Your task to perform on an android device: Open Maps and search for coffee Image 0: 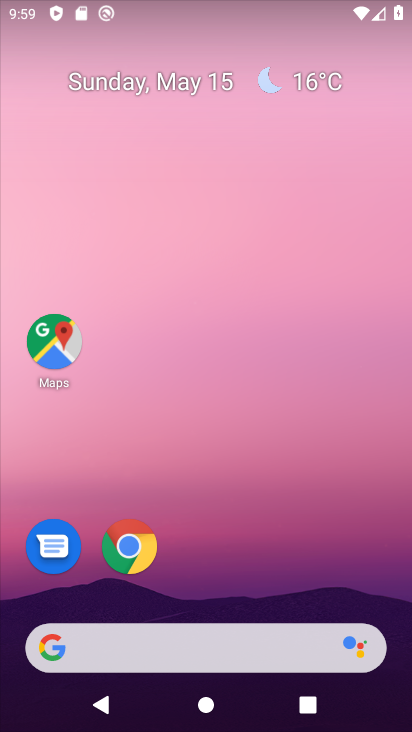
Step 0: click (165, 0)
Your task to perform on an android device: Open Maps and search for coffee Image 1: 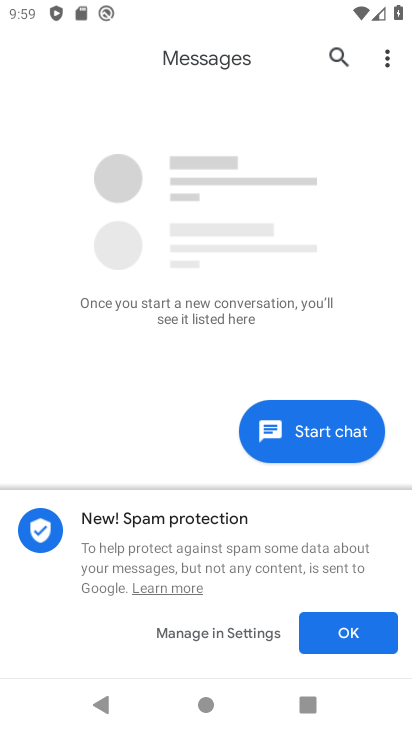
Step 1: press back button
Your task to perform on an android device: Open Maps and search for coffee Image 2: 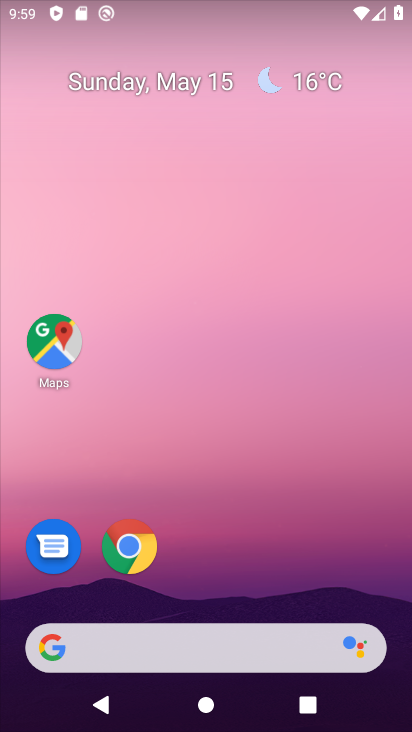
Step 2: drag from (278, 683) to (232, 128)
Your task to perform on an android device: Open Maps and search for coffee Image 3: 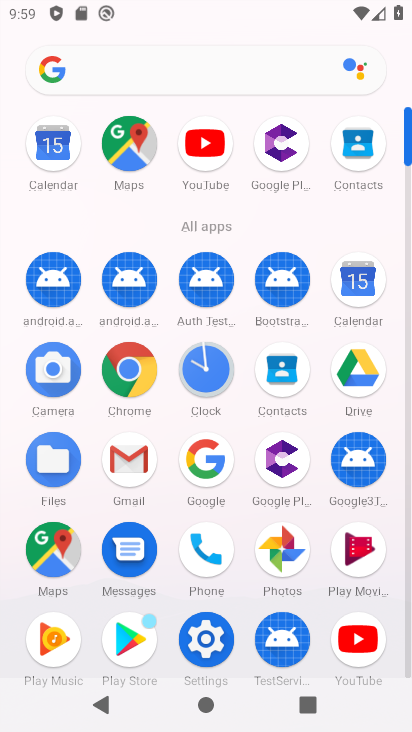
Step 3: click (45, 551)
Your task to perform on an android device: Open Maps and search for coffee Image 4: 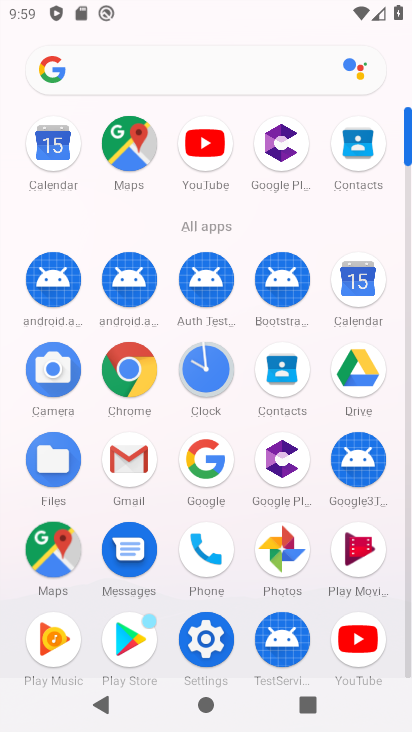
Step 4: click (45, 551)
Your task to perform on an android device: Open Maps and search for coffee Image 5: 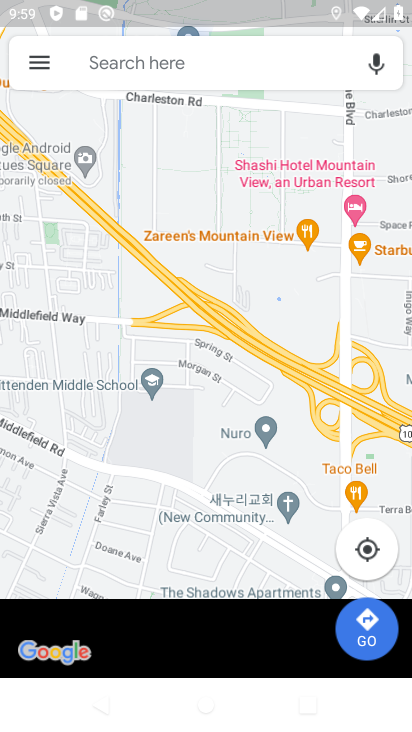
Step 5: click (99, 56)
Your task to perform on an android device: Open Maps and search for coffee Image 6: 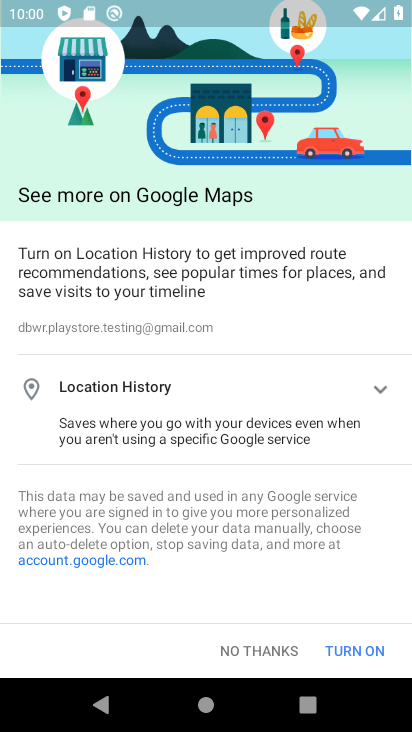
Step 6: press back button
Your task to perform on an android device: Open Maps and search for coffee Image 7: 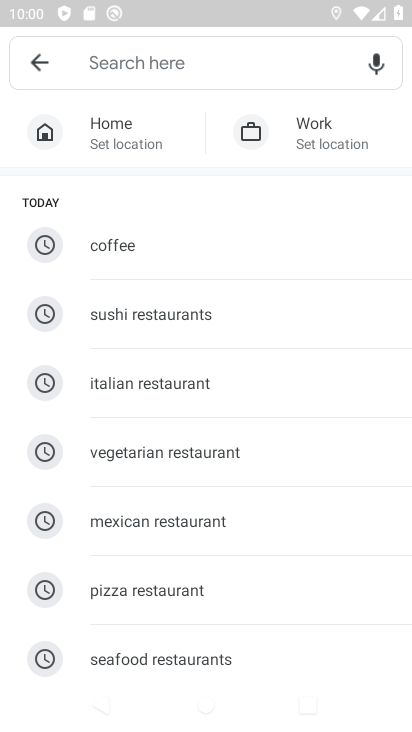
Step 7: click (118, 248)
Your task to perform on an android device: Open Maps and search for coffee Image 8: 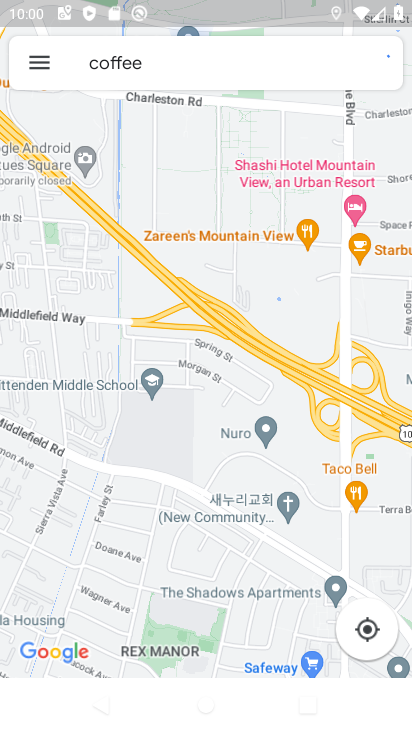
Step 8: task complete